Your task to perform on an android device: turn off notifications in google photos Image 0: 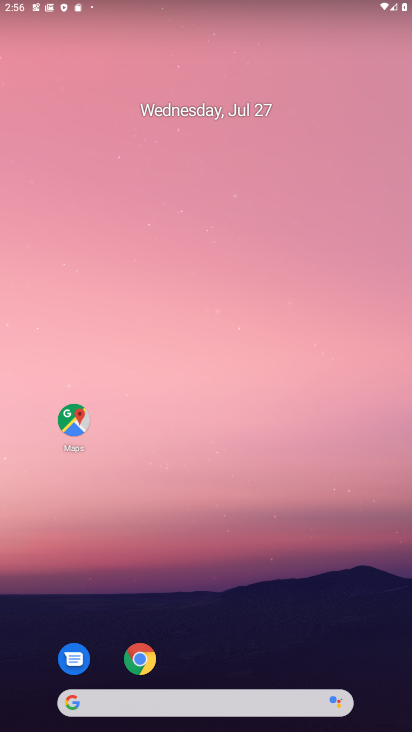
Step 0: drag from (217, 687) to (117, 214)
Your task to perform on an android device: turn off notifications in google photos Image 1: 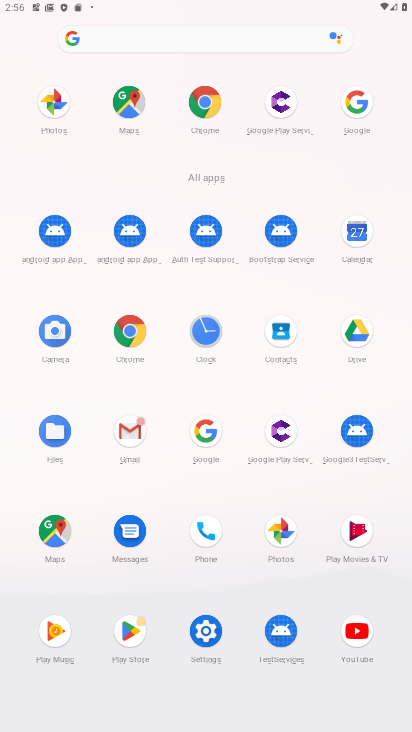
Step 1: click (289, 532)
Your task to perform on an android device: turn off notifications in google photos Image 2: 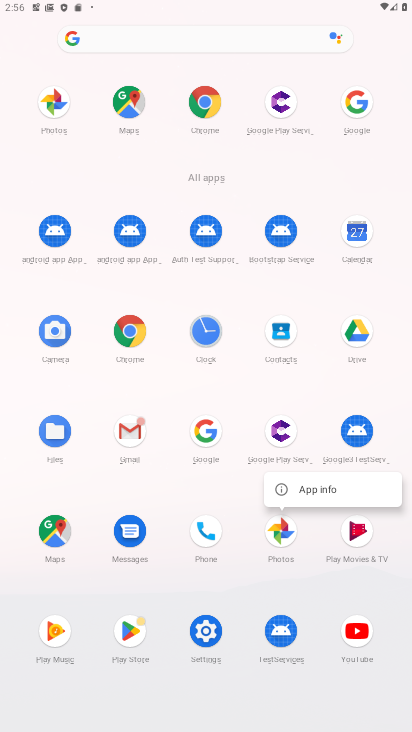
Step 2: click (287, 532)
Your task to perform on an android device: turn off notifications in google photos Image 3: 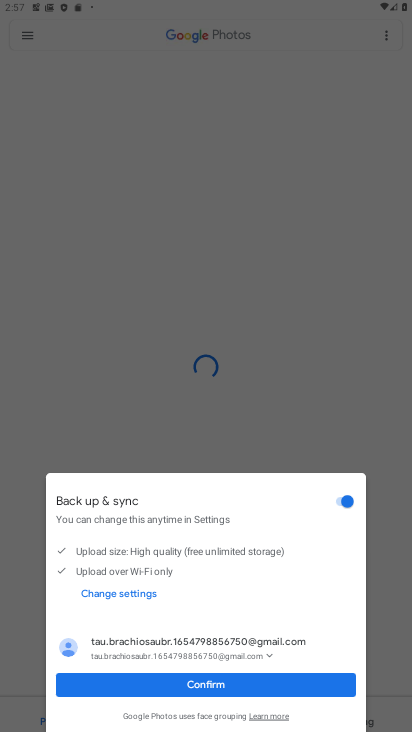
Step 3: click (174, 683)
Your task to perform on an android device: turn off notifications in google photos Image 4: 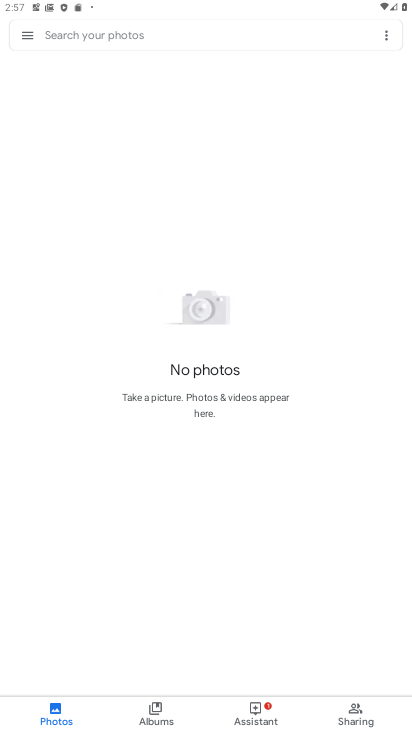
Step 4: click (25, 33)
Your task to perform on an android device: turn off notifications in google photos Image 5: 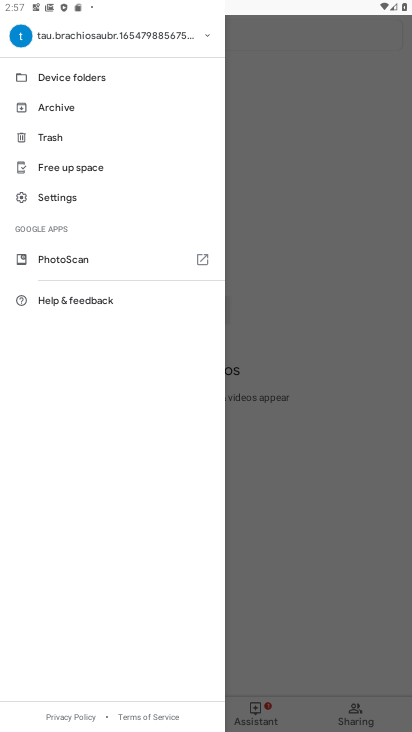
Step 5: click (60, 197)
Your task to perform on an android device: turn off notifications in google photos Image 6: 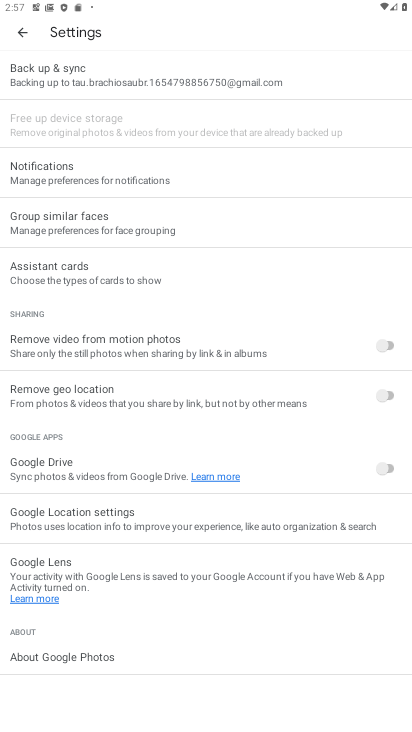
Step 6: click (38, 172)
Your task to perform on an android device: turn off notifications in google photos Image 7: 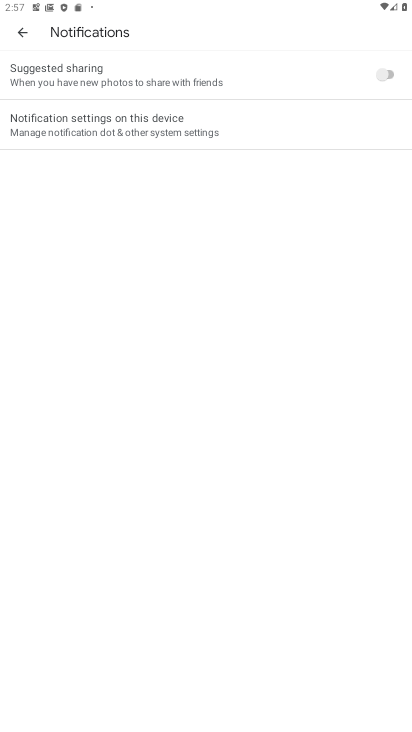
Step 7: click (178, 126)
Your task to perform on an android device: turn off notifications in google photos Image 8: 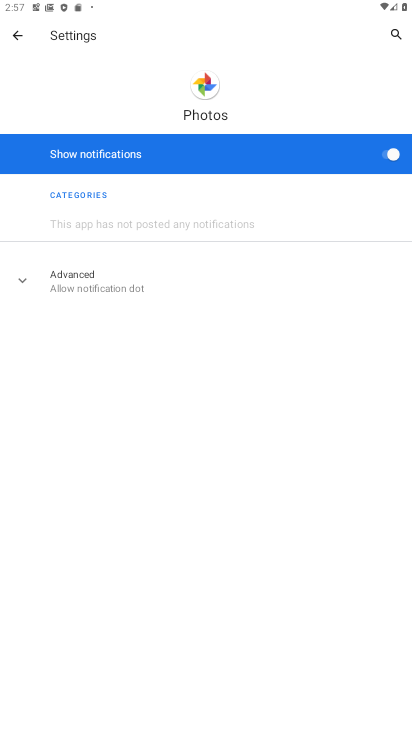
Step 8: click (390, 152)
Your task to perform on an android device: turn off notifications in google photos Image 9: 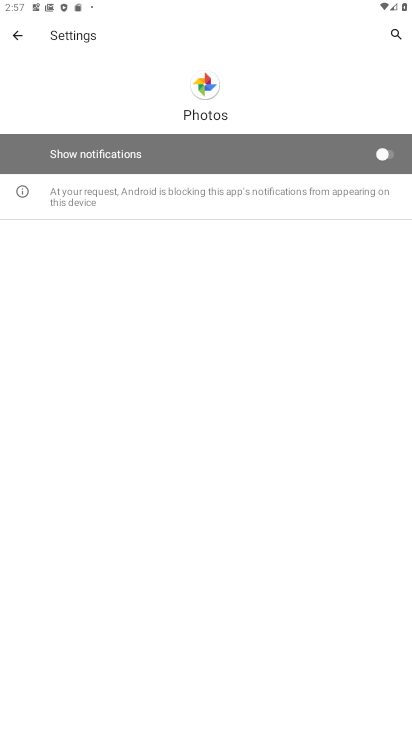
Step 9: task complete